Your task to perform on an android device: open chrome privacy settings Image 0: 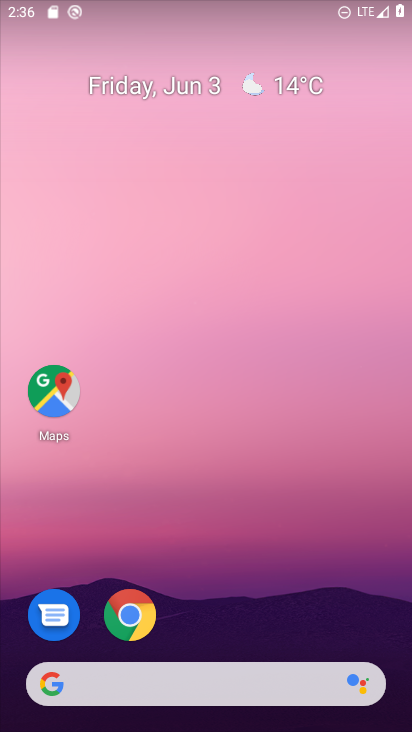
Step 0: drag from (205, 594) to (219, 28)
Your task to perform on an android device: open chrome privacy settings Image 1: 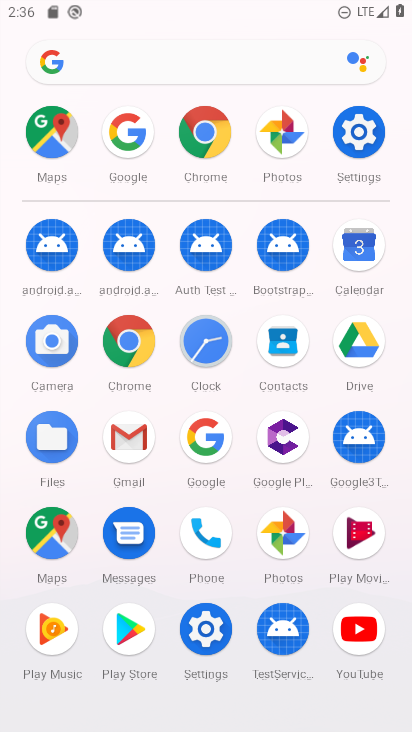
Step 1: click (201, 126)
Your task to perform on an android device: open chrome privacy settings Image 2: 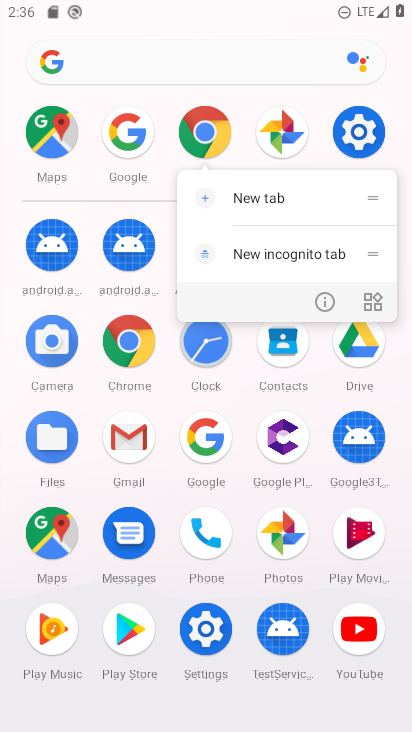
Step 2: click (321, 290)
Your task to perform on an android device: open chrome privacy settings Image 3: 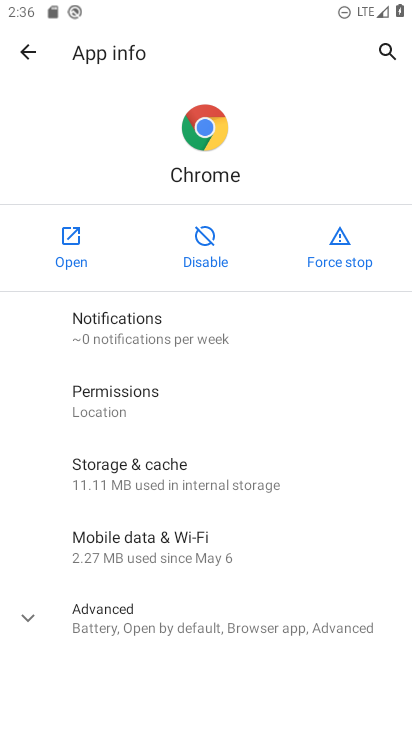
Step 3: click (70, 229)
Your task to perform on an android device: open chrome privacy settings Image 4: 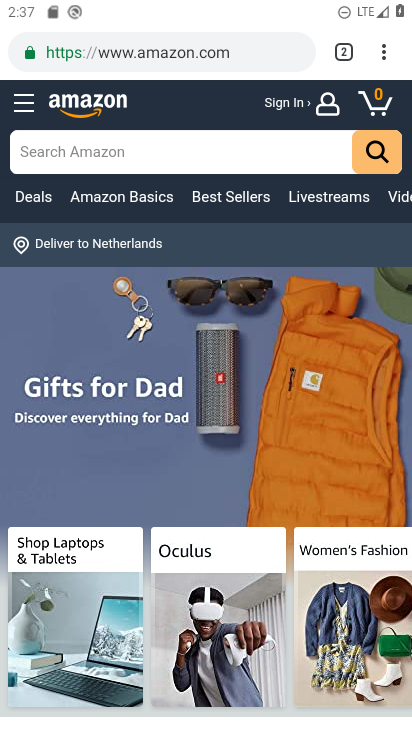
Step 4: click (376, 58)
Your task to perform on an android device: open chrome privacy settings Image 5: 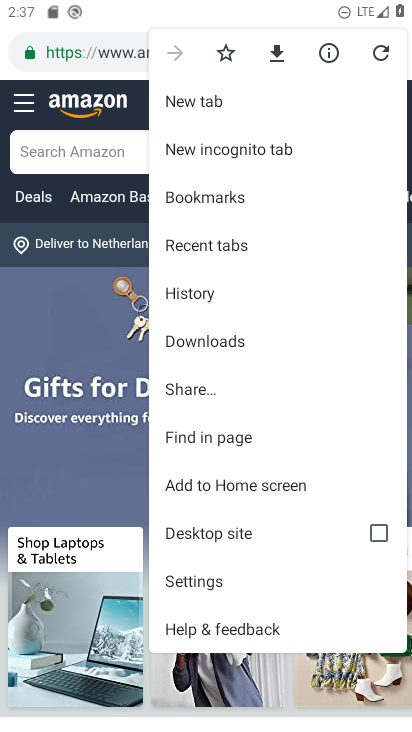
Step 5: click (202, 569)
Your task to perform on an android device: open chrome privacy settings Image 6: 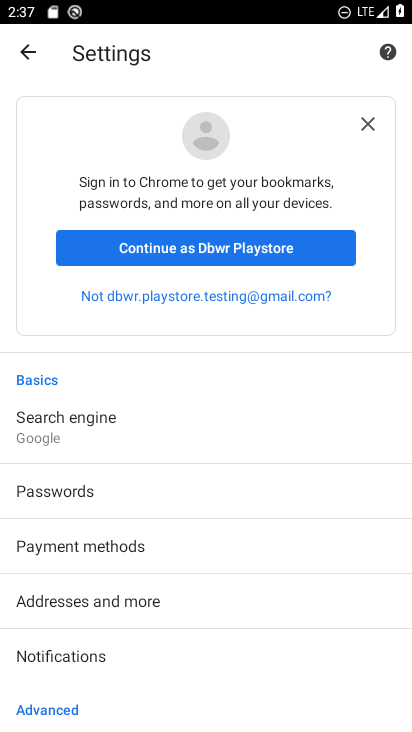
Step 6: drag from (178, 561) to (269, 11)
Your task to perform on an android device: open chrome privacy settings Image 7: 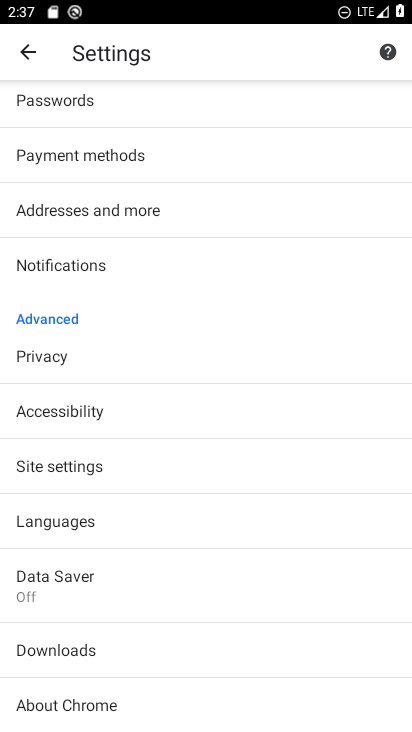
Step 7: drag from (96, 628) to (189, 301)
Your task to perform on an android device: open chrome privacy settings Image 8: 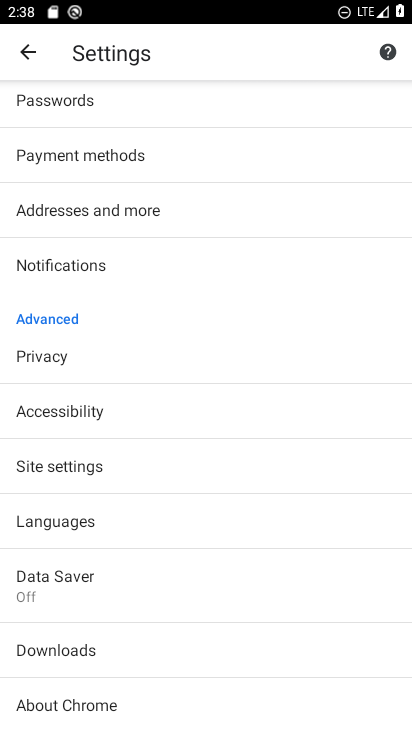
Step 8: click (126, 361)
Your task to perform on an android device: open chrome privacy settings Image 9: 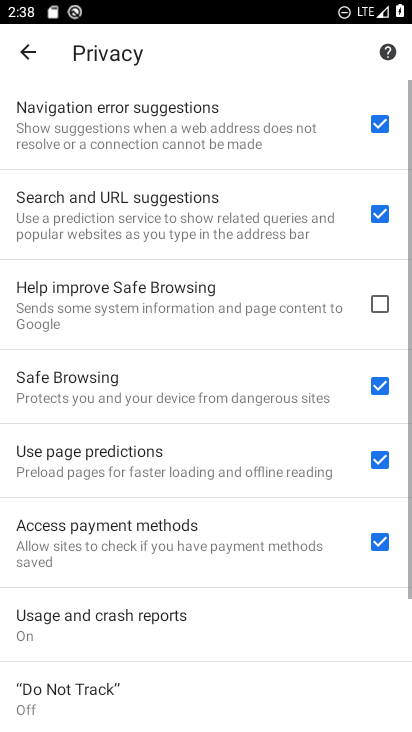
Step 9: task complete